Your task to perform on an android device: change the upload size in google photos Image 0: 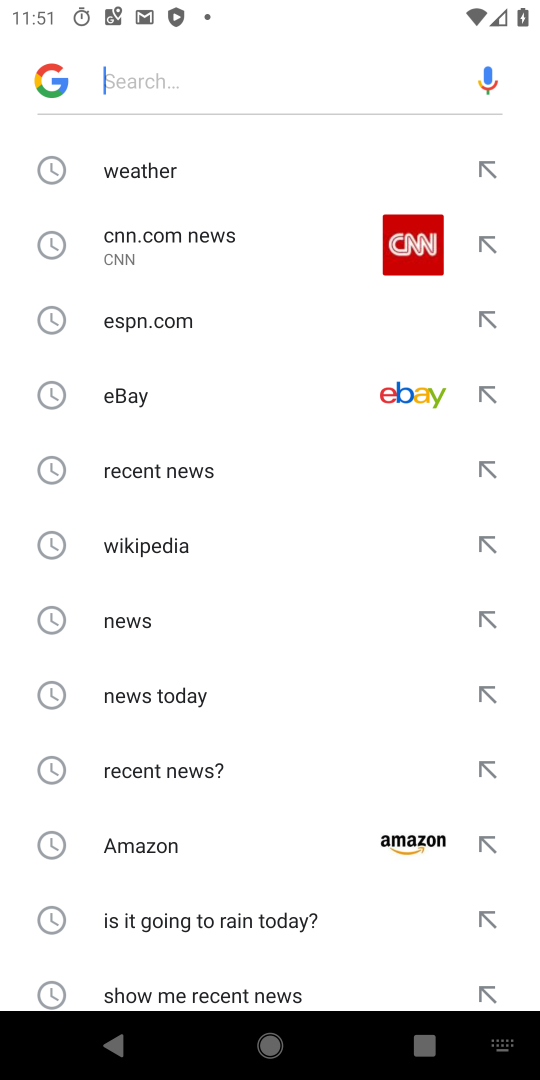
Step 0: press home button
Your task to perform on an android device: change the upload size in google photos Image 1: 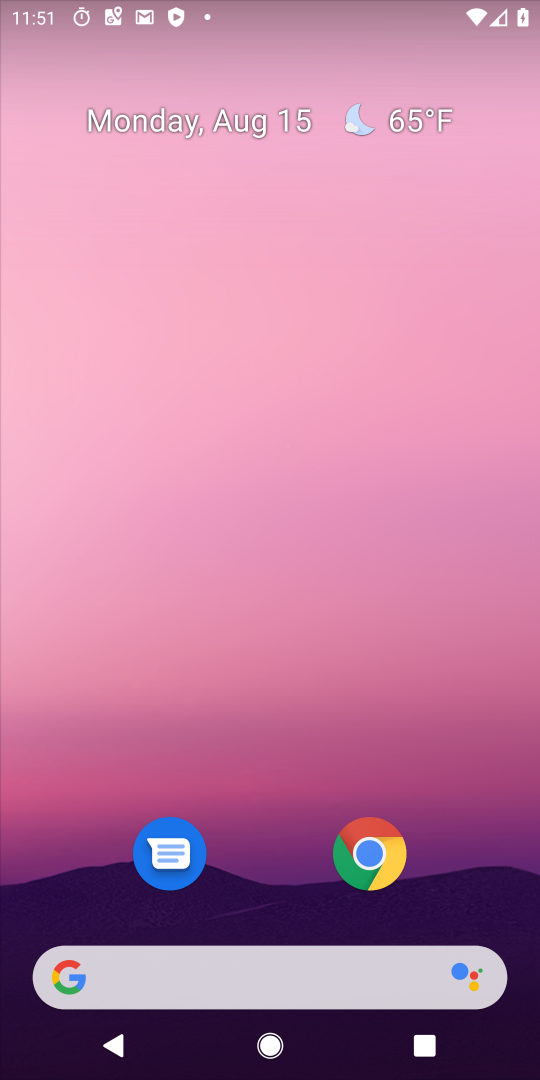
Step 1: drag from (209, 930) to (188, 378)
Your task to perform on an android device: change the upload size in google photos Image 2: 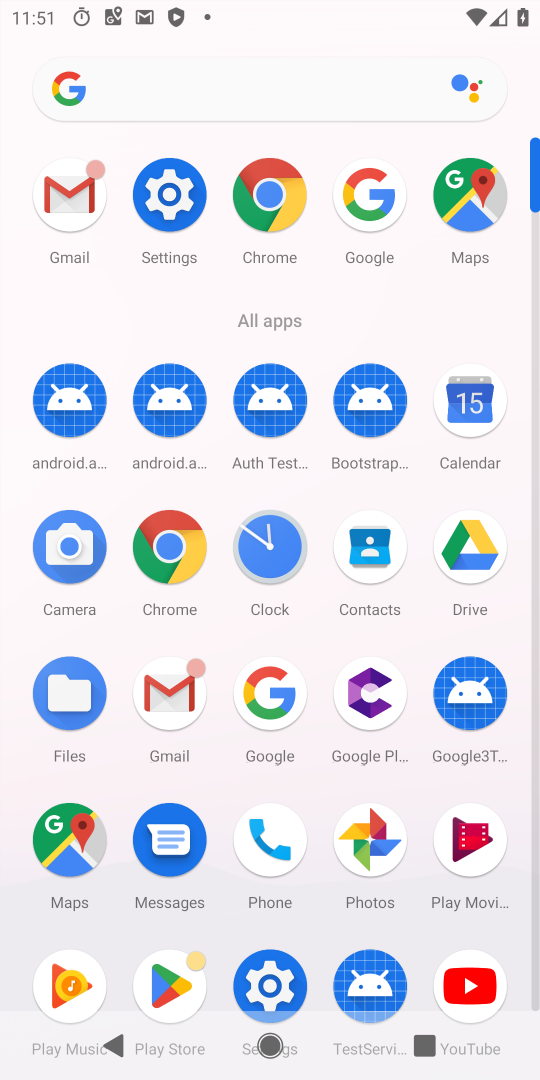
Step 2: click (372, 842)
Your task to perform on an android device: change the upload size in google photos Image 3: 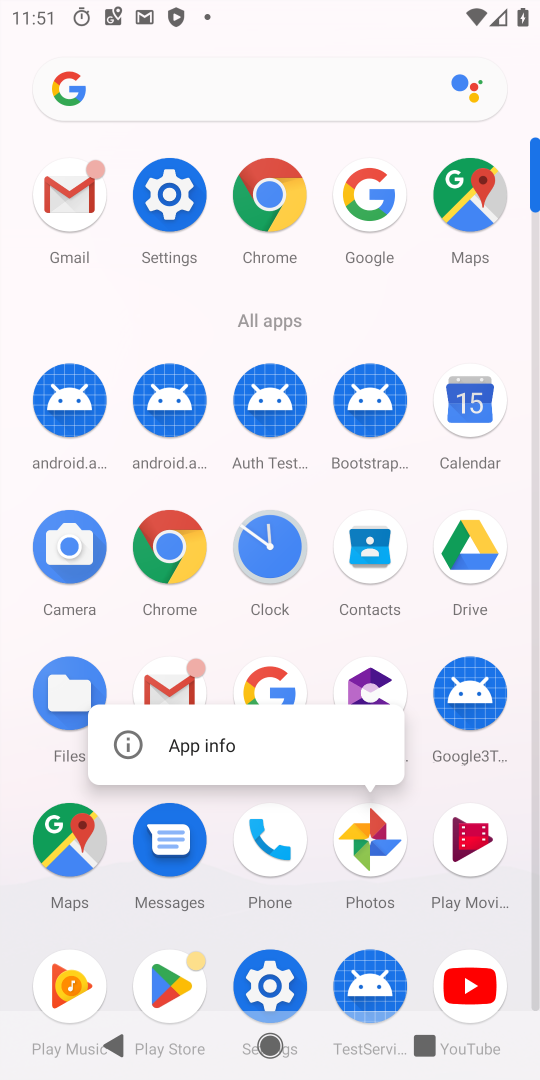
Step 3: click (370, 836)
Your task to perform on an android device: change the upload size in google photos Image 4: 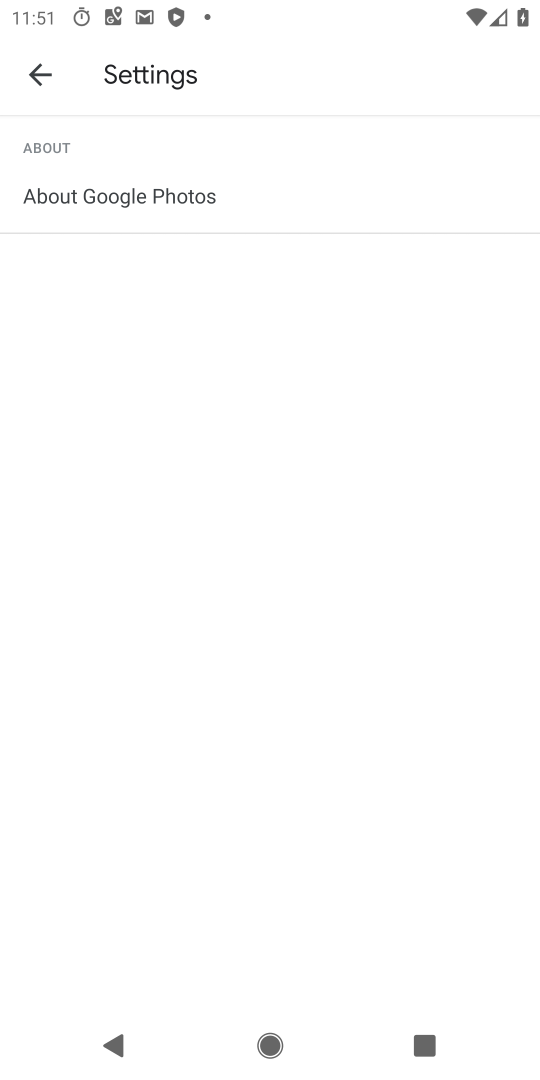
Step 4: click (20, 89)
Your task to perform on an android device: change the upload size in google photos Image 5: 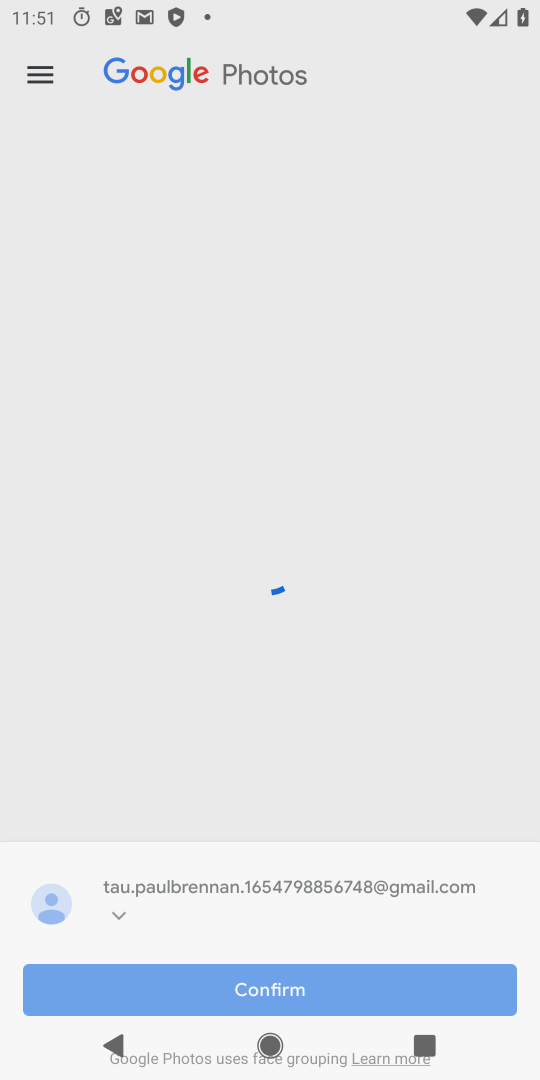
Step 5: click (32, 78)
Your task to perform on an android device: change the upload size in google photos Image 6: 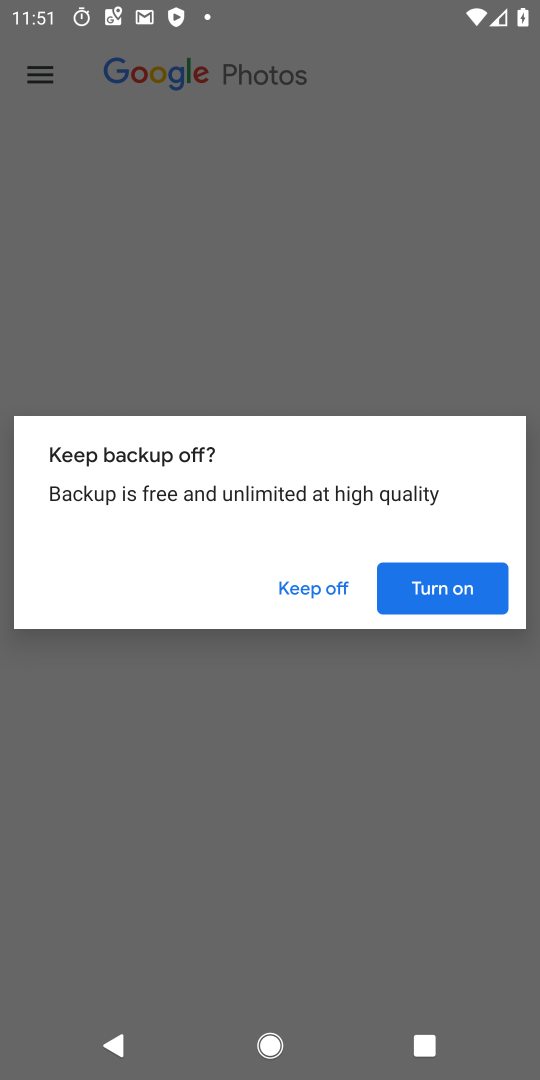
Step 6: click (442, 589)
Your task to perform on an android device: change the upload size in google photos Image 7: 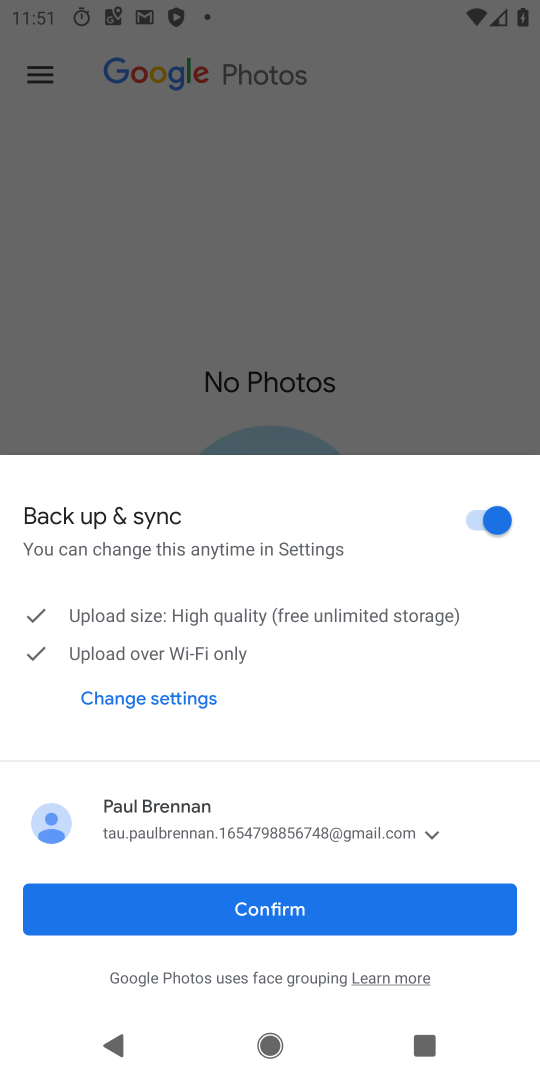
Step 7: click (281, 903)
Your task to perform on an android device: change the upload size in google photos Image 8: 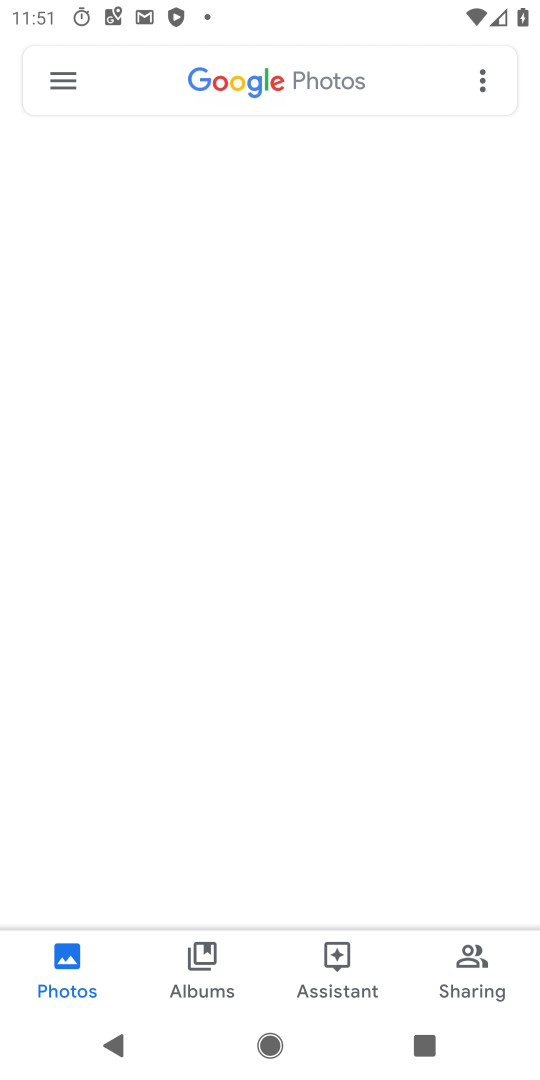
Step 8: click (45, 78)
Your task to perform on an android device: change the upload size in google photos Image 9: 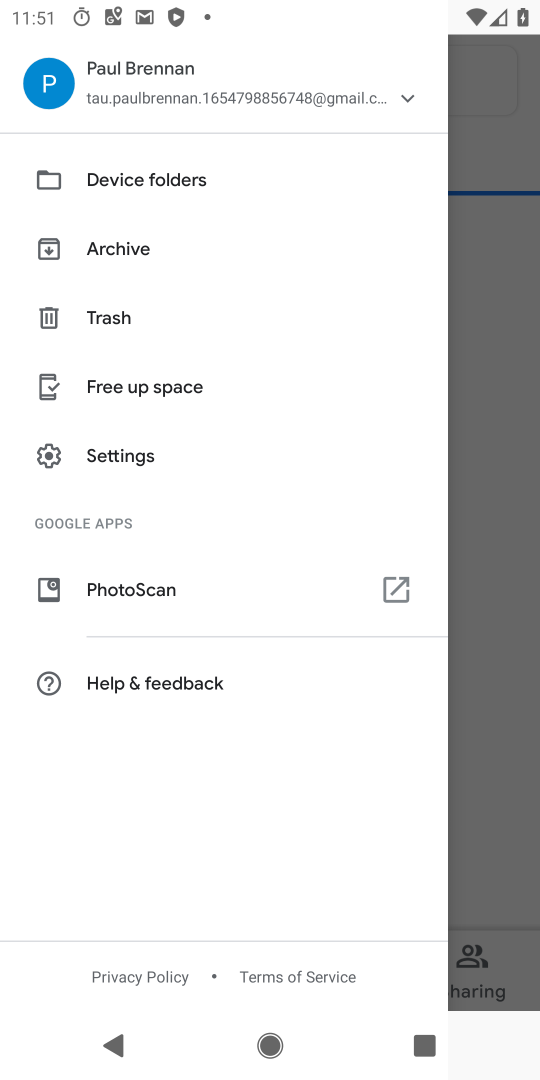
Step 9: click (110, 433)
Your task to perform on an android device: change the upload size in google photos Image 10: 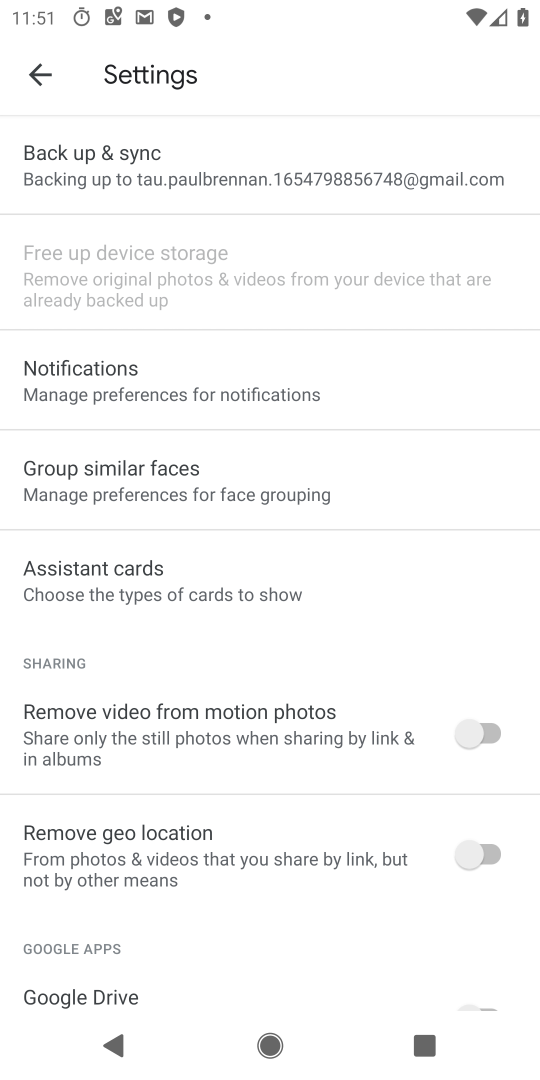
Step 10: click (84, 159)
Your task to perform on an android device: change the upload size in google photos Image 11: 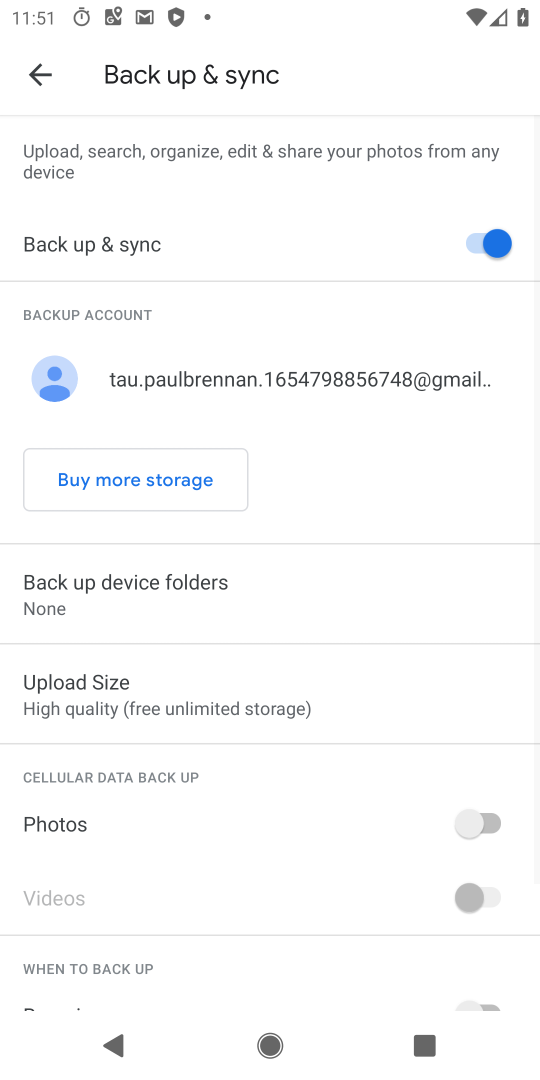
Step 11: click (114, 674)
Your task to perform on an android device: change the upload size in google photos Image 12: 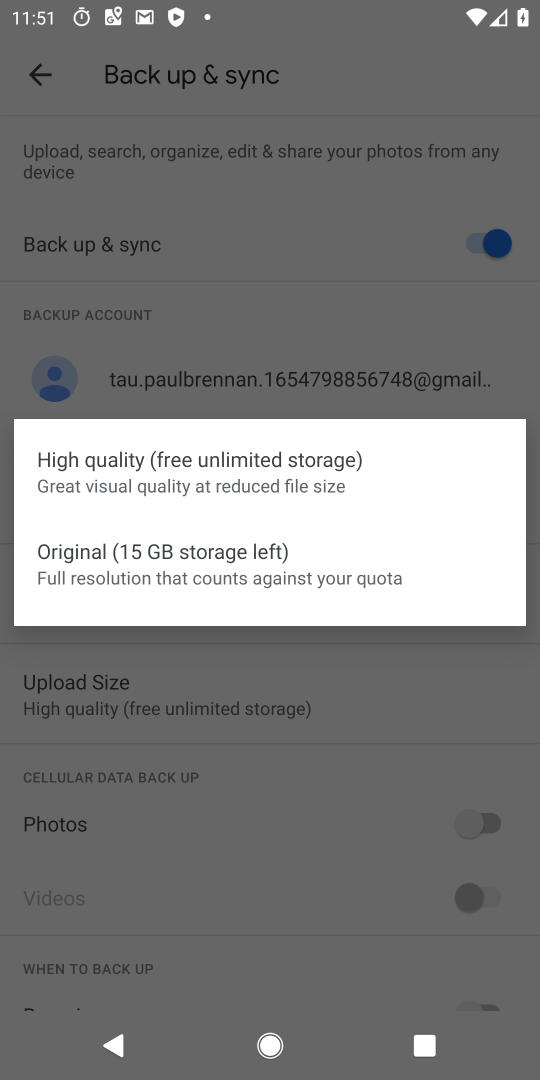
Step 12: click (94, 558)
Your task to perform on an android device: change the upload size in google photos Image 13: 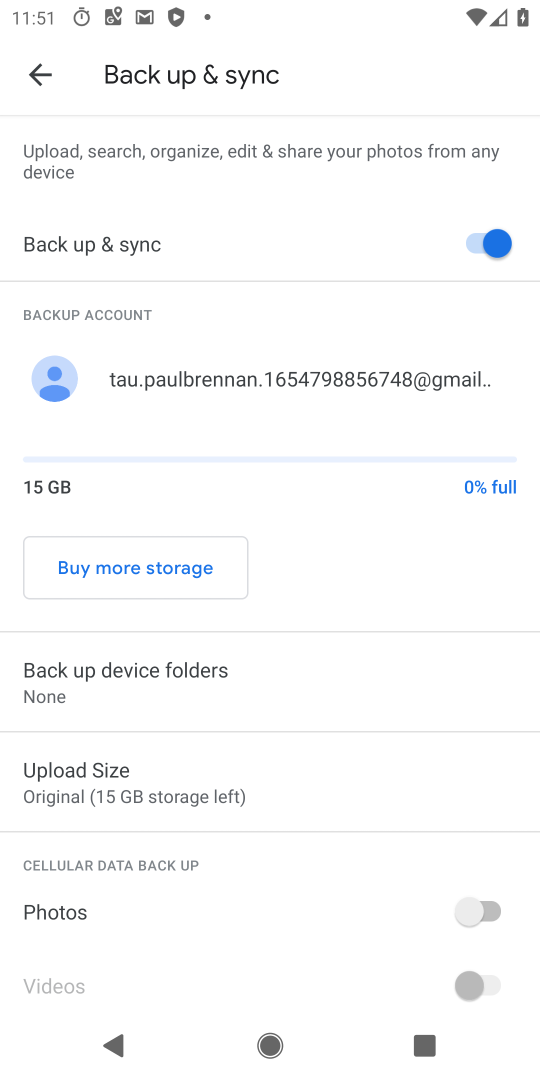
Step 13: task complete